Your task to perform on an android device: What's the weather today? Image 0: 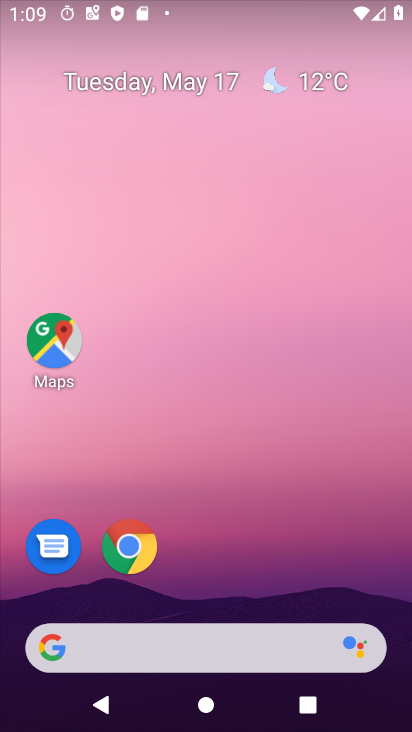
Step 0: press home button
Your task to perform on an android device: What's the weather today? Image 1: 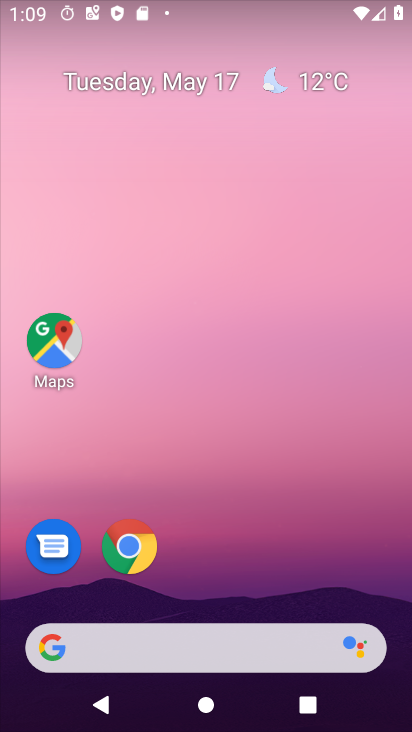
Step 1: click (333, 83)
Your task to perform on an android device: What's the weather today? Image 2: 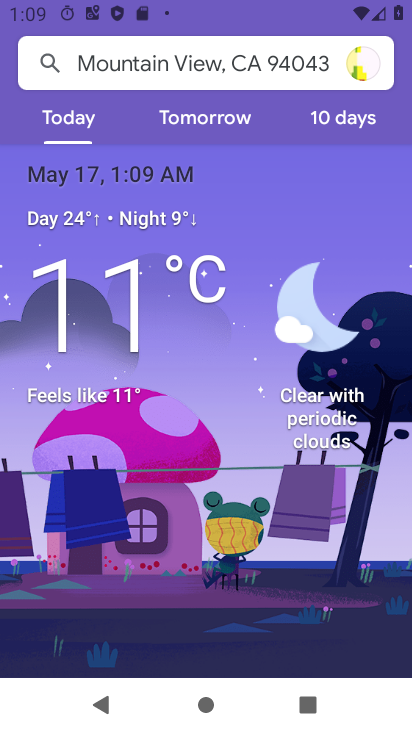
Step 2: task complete